Your task to perform on an android device: Search for a sofa on article.com Image 0: 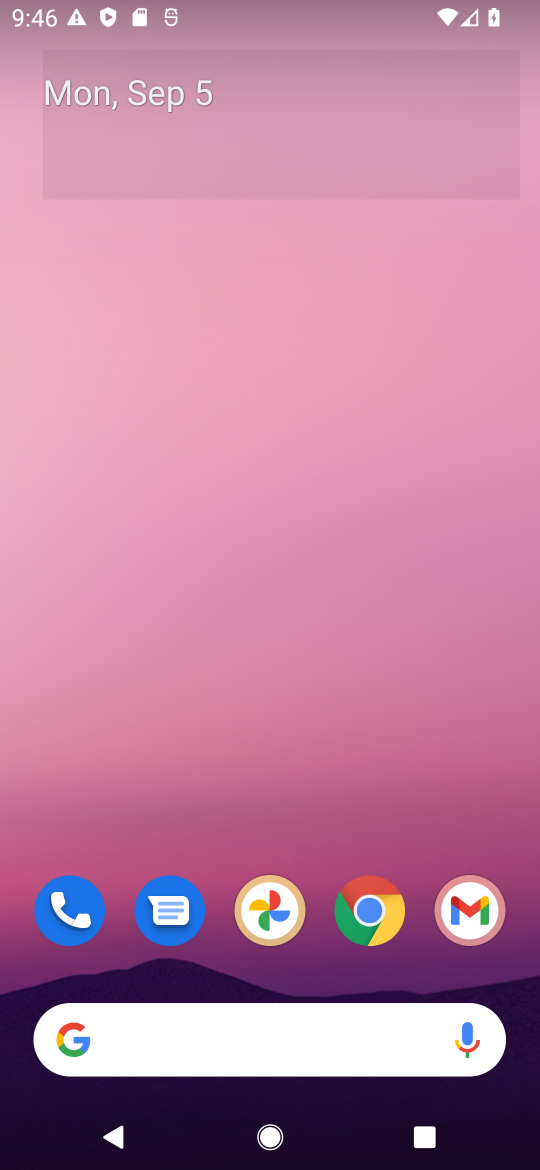
Step 0: click (349, 942)
Your task to perform on an android device: Search for a sofa on article.com Image 1: 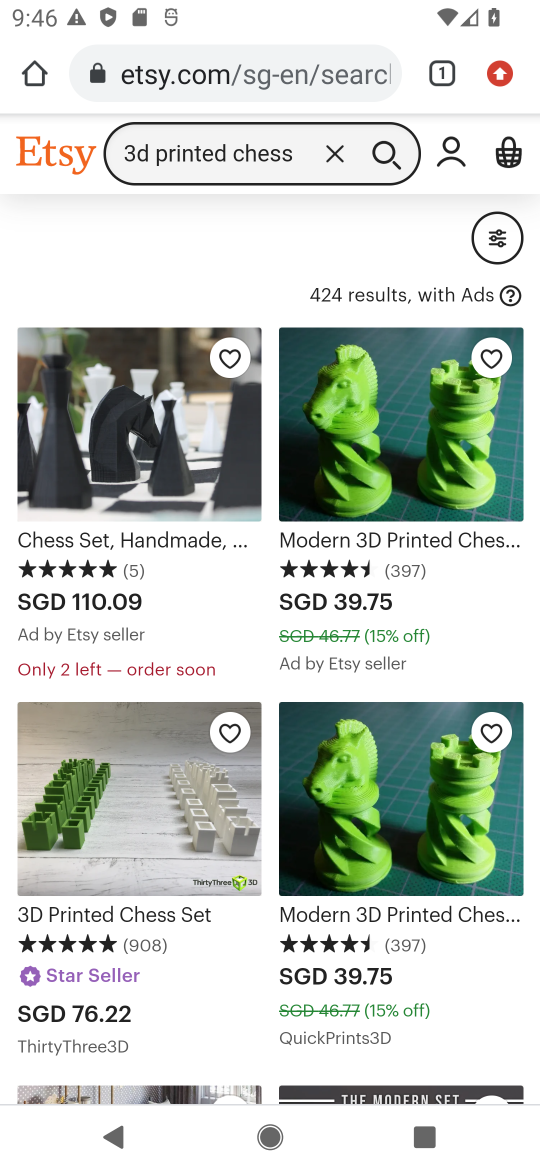
Step 1: click (246, 85)
Your task to perform on an android device: Search for a sofa on article.com Image 2: 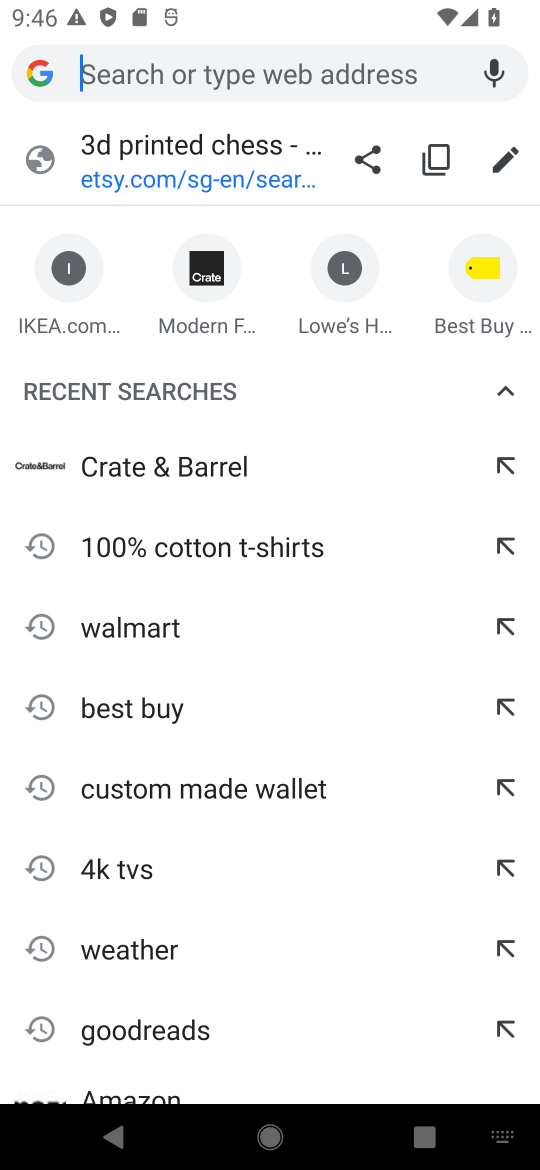
Step 2: type "article.com"
Your task to perform on an android device: Search for a sofa on article.com Image 3: 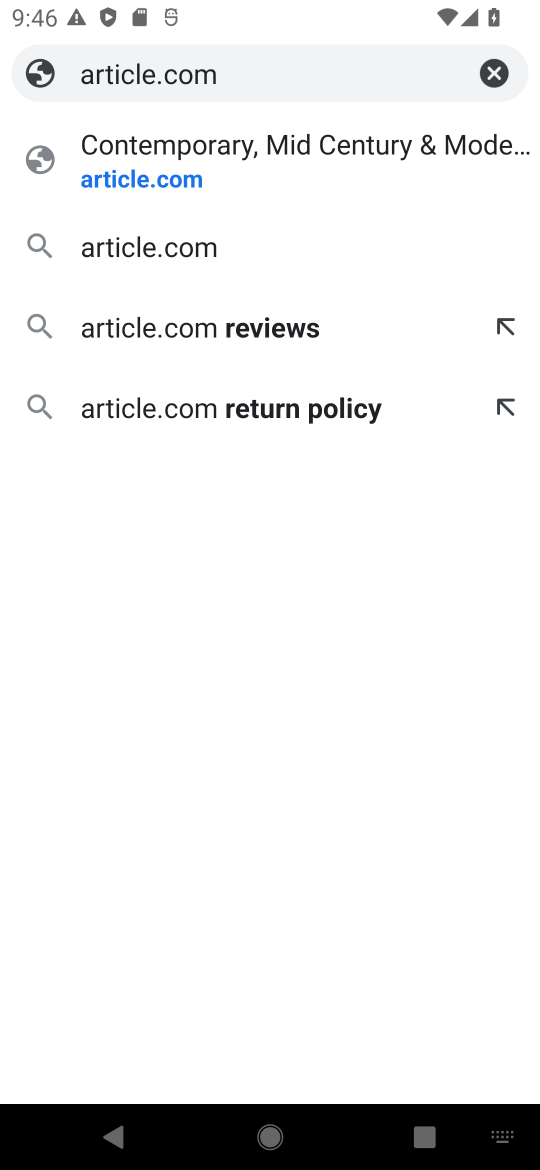
Step 3: click (318, 137)
Your task to perform on an android device: Search for a sofa on article.com Image 4: 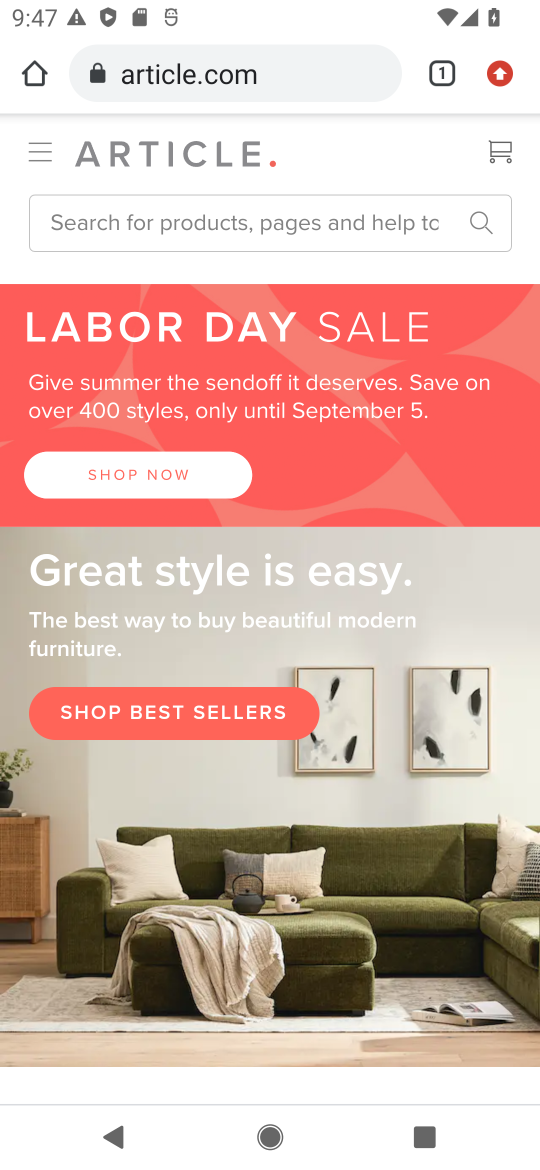
Step 4: click (252, 245)
Your task to perform on an android device: Search for a sofa on article.com Image 5: 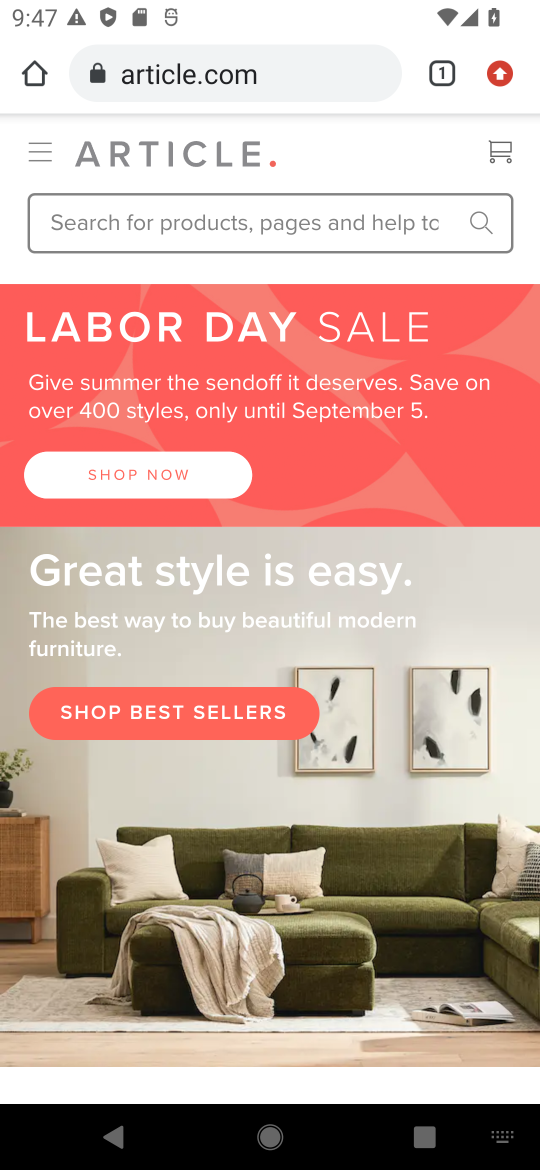
Step 5: type "sofa"
Your task to perform on an android device: Search for a sofa on article.com Image 6: 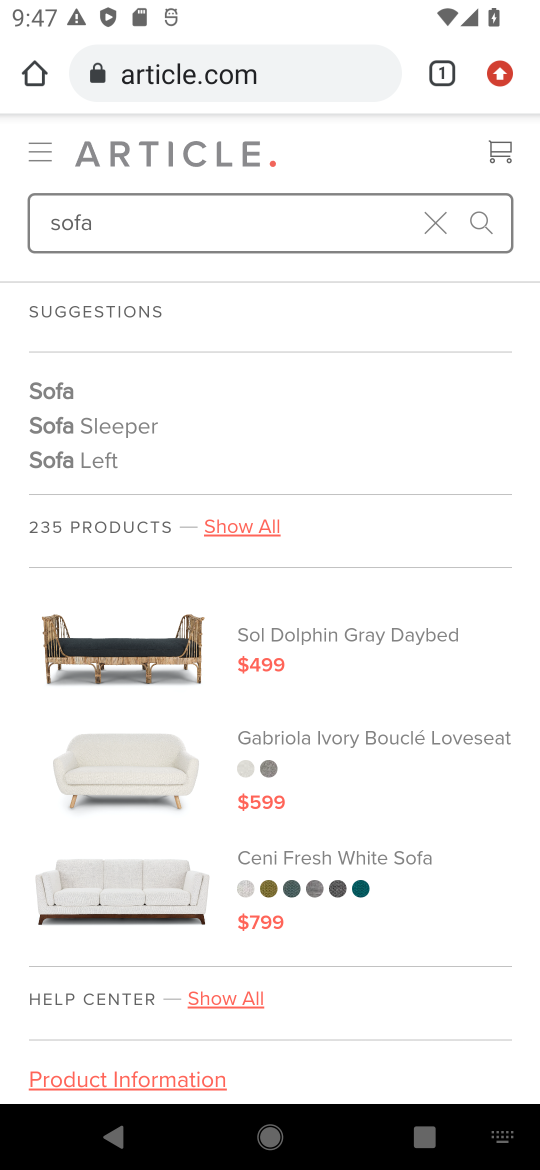
Step 6: press enter
Your task to perform on an android device: Search for a sofa on article.com Image 7: 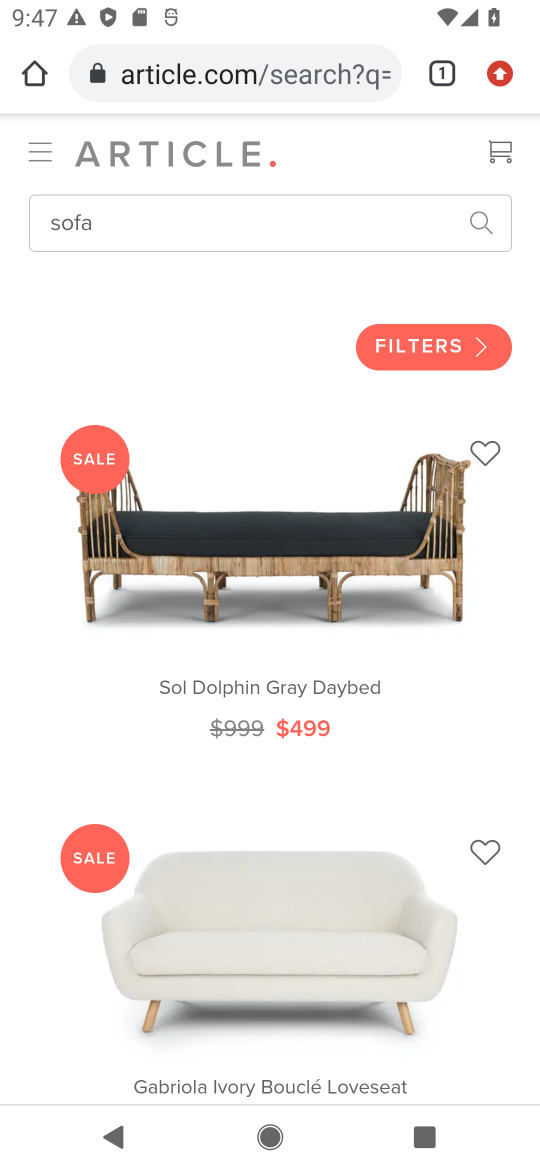
Step 7: task complete